Your task to perform on an android device: find snoozed emails in the gmail app Image 0: 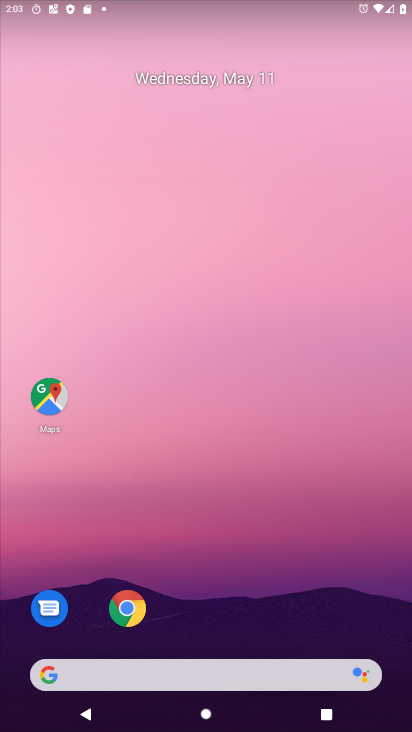
Step 0: drag from (243, 620) to (252, 225)
Your task to perform on an android device: find snoozed emails in the gmail app Image 1: 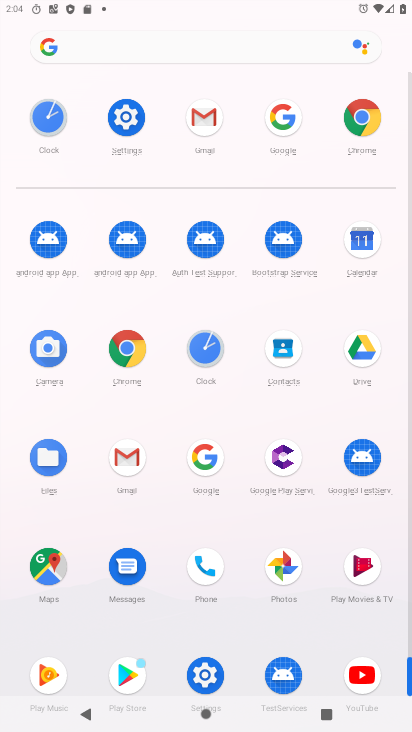
Step 1: click (132, 465)
Your task to perform on an android device: find snoozed emails in the gmail app Image 2: 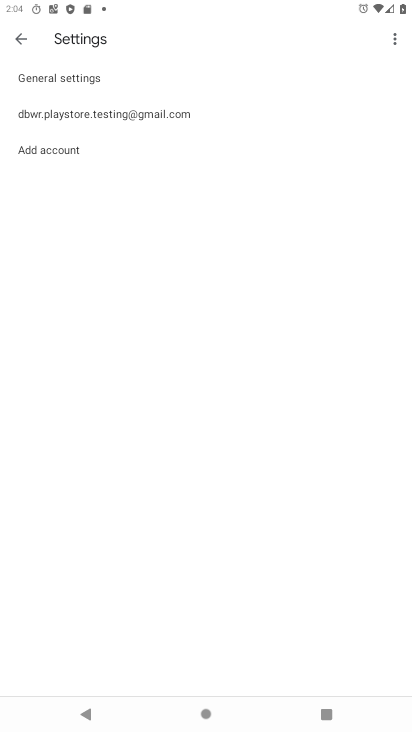
Step 2: click (15, 40)
Your task to perform on an android device: find snoozed emails in the gmail app Image 3: 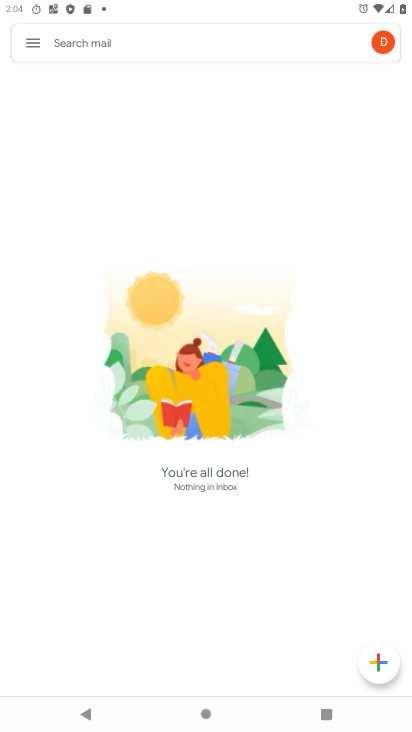
Step 3: click (28, 45)
Your task to perform on an android device: find snoozed emails in the gmail app Image 4: 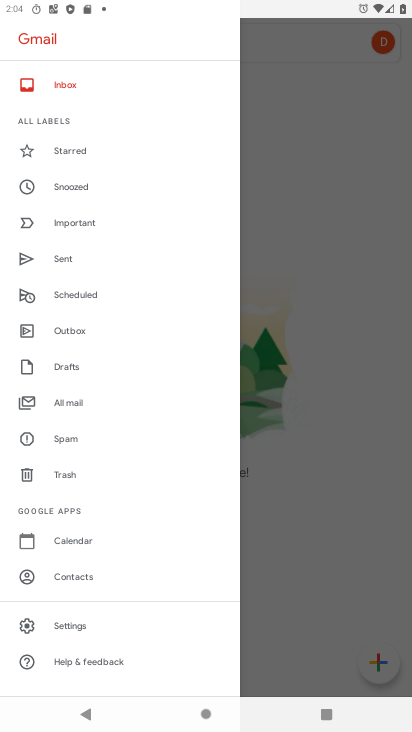
Step 4: click (100, 184)
Your task to perform on an android device: find snoozed emails in the gmail app Image 5: 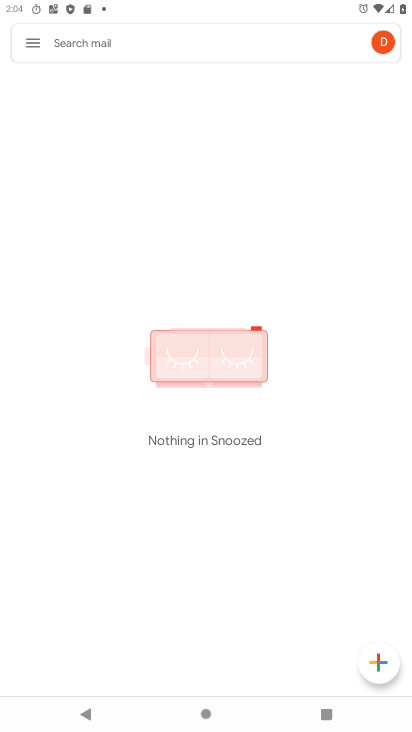
Step 5: task complete